Your task to perform on an android device: install app "Fetch Rewards" Image 0: 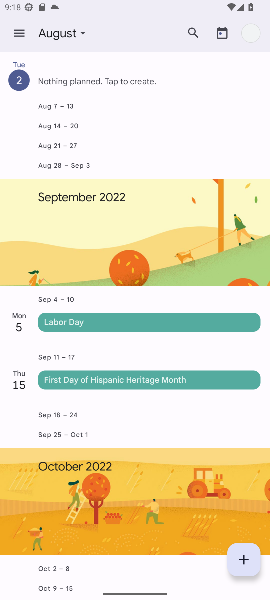
Step 0: press home button
Your task to perform on an android device: install app "Fetch Rewards" Image 1: 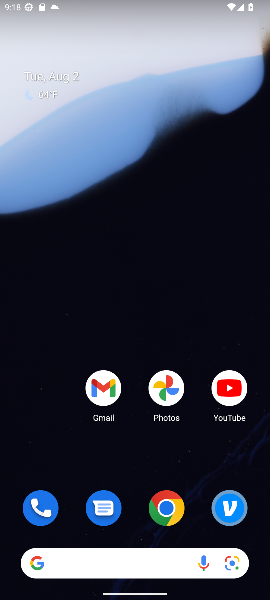
Step 1: drag from (141, 532) to (157, 178)
Your task to perform on an android device: install app "Fetch Rewards" Image 2: 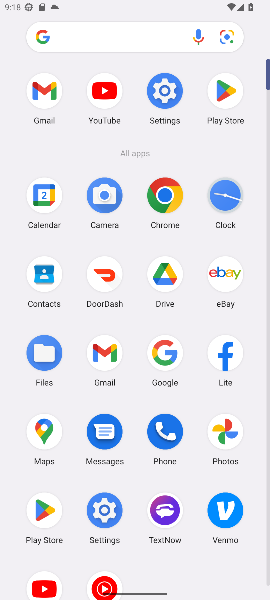
Step 2: click (220, 118)
Your task to perform on an android device: install app "Fetch Rewards" Image 3: 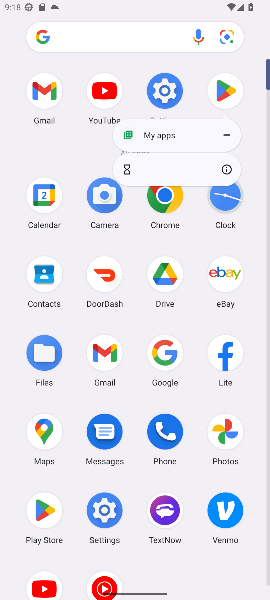
Step 3: click (230, 99)
Your task to perform on an android device: install app "Fetch Rewards" Image 4: 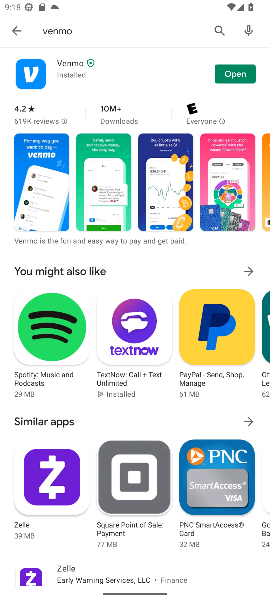
Step 4: click (22, 32)
Your task to perform on an android device: install app "Fetch Rewards" Image 5: 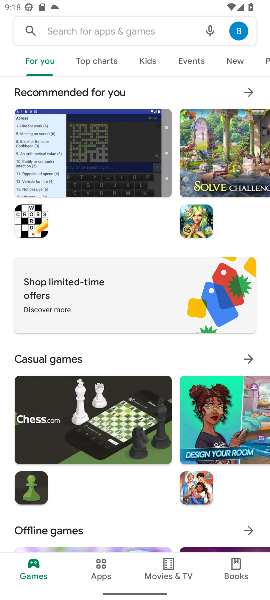
Step 5: click (67, 24)
Your task to perform on an android device: install app "Fetch Rewards" Image 6: 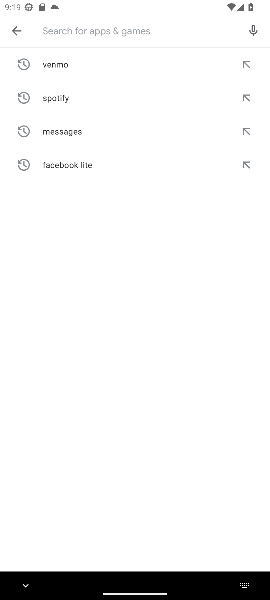
Step 6: type "Fetch Rewards"
Your task to perform on an android device: install app "Fetch Rewards" Image 7: 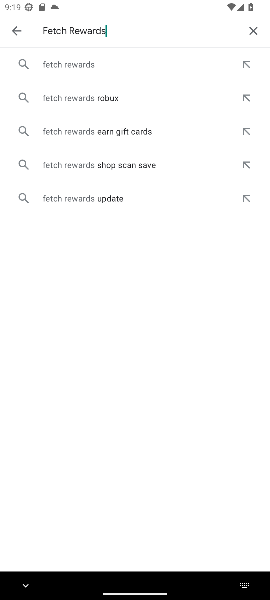
Step 7: click (38, 67)
Your task to perform on an android device: install app "Fetch Rewards" Image 8: 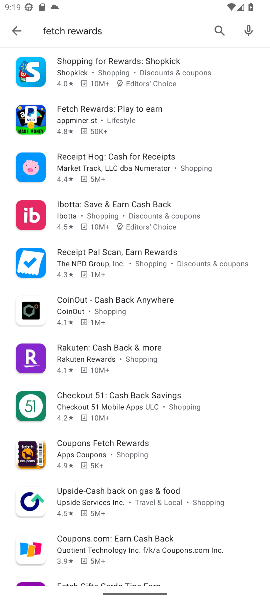
Step 8: click (114, 128)
Your task to perform on an android device: install app "Fetch Rewards" Image 9: 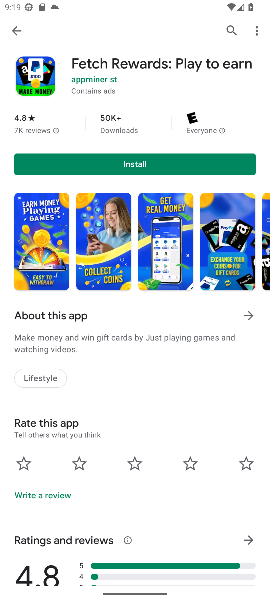
Step 9: click (186, 167)
Your task to perform on an android device: install app "Fetch Rewards" Image 10: 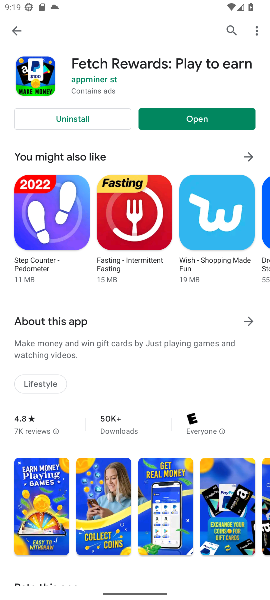
Step 10: task complete